Your task to perform on an android device: change the upload size in google photos Image 0: 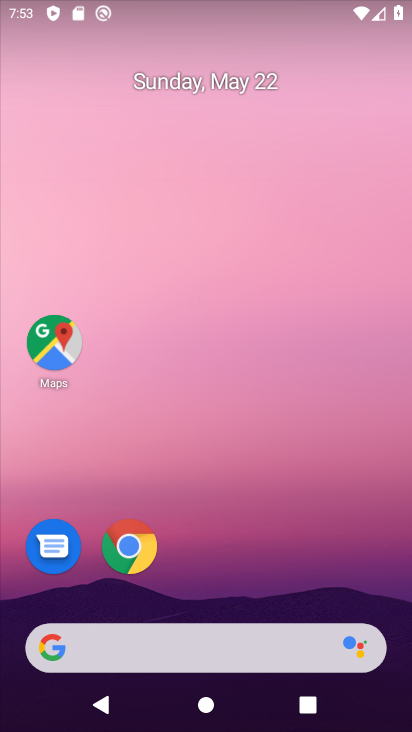
Step 0: drag from (195, 641) to (312, 111)
Your task to perform on an android device: change the upload size in google photos Image 1: 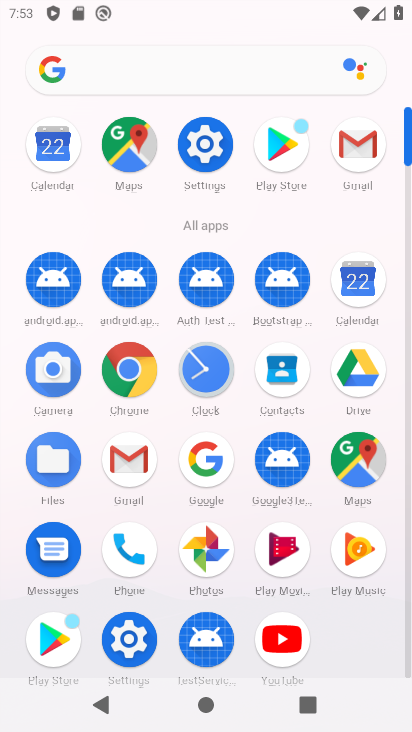
Step 1: click (198, 547)
Your task to perform on an android device: change the upload size in google photos Image 2: 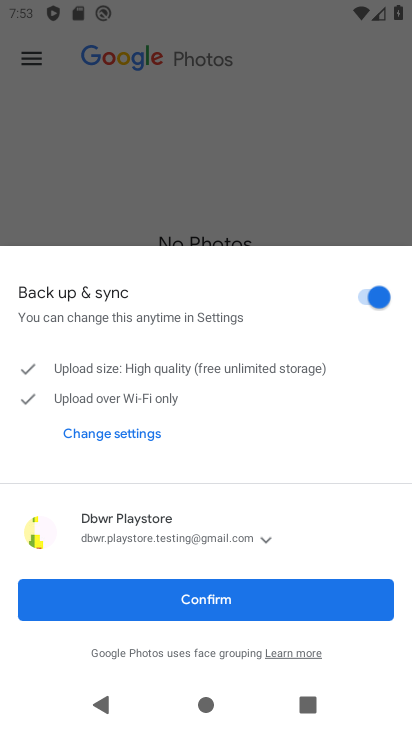
Step 2: click (197, 611)
Your task to perform on an android device: change the upload size in google photos Image 3: 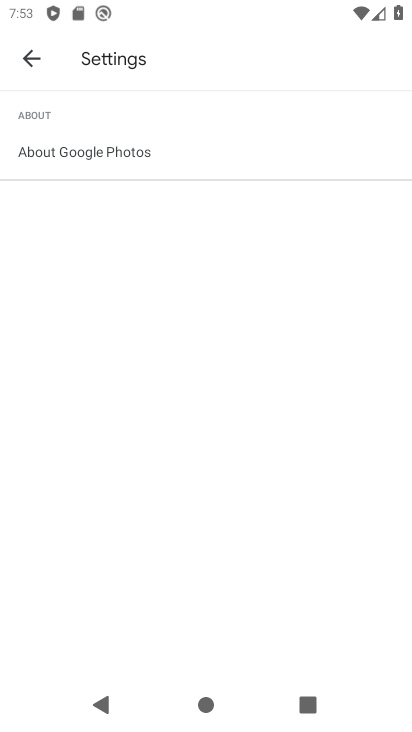
Step 3: click (33, 57)
Your task to perform on an android device: change the upload size in google photos Image 4: 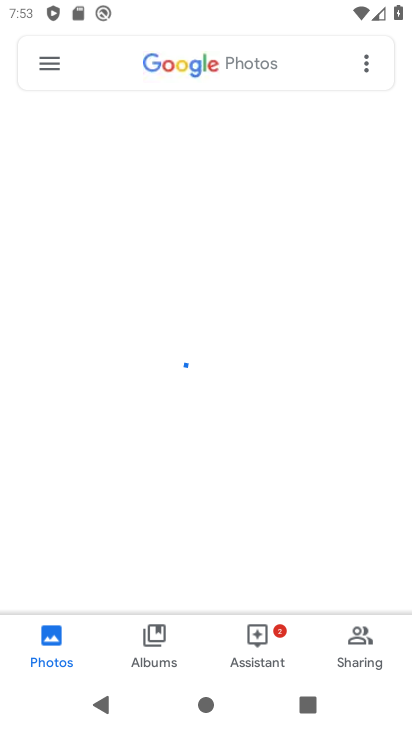
Step 4: click (47, 58)
Your task to perform on an android device: change the upload size in google photos Image 5: 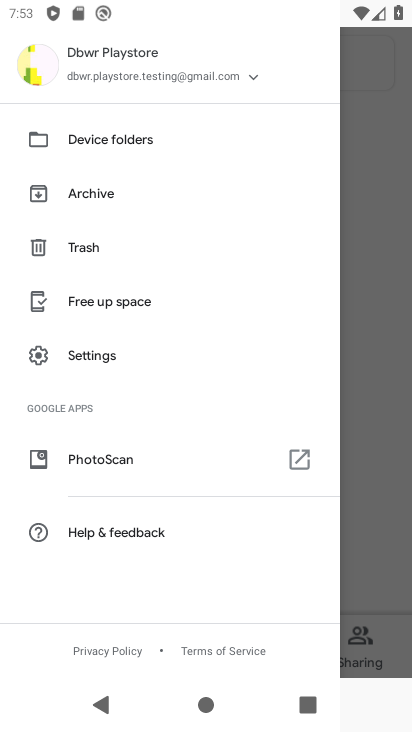
Step 5: click (107, 354)
Your task to perform on an android device: change the upload size in google photos Image 6: 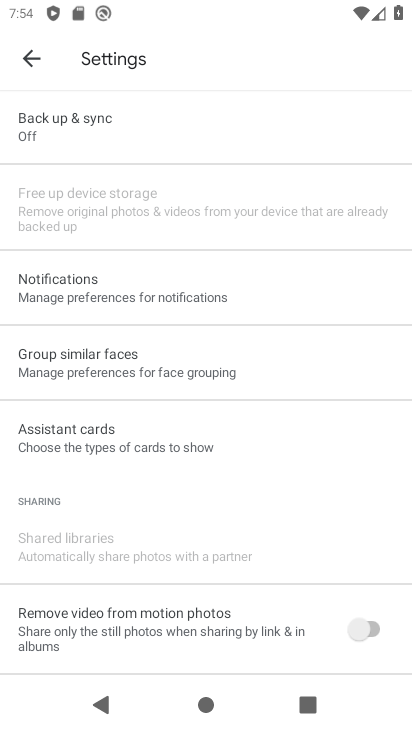
Step 6: click (117, 128)
Your task to perform on an android device: change the upload size in google photos Image 7: 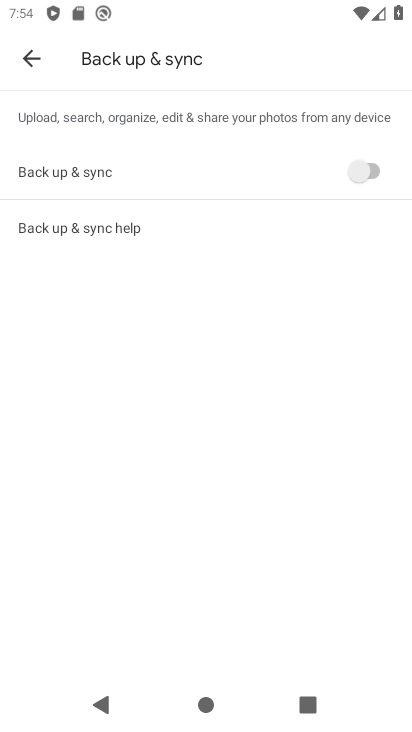
Step 7: click (374, 171)
Your task to perform on an android device: change the upload size in google photos Image 8: 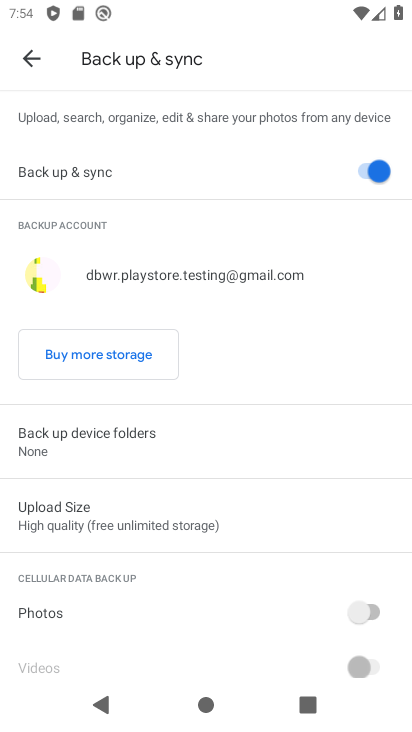
Step 8: click (165, 511)
Your task to perform on an android device: change the upload size in google photos Image 9: 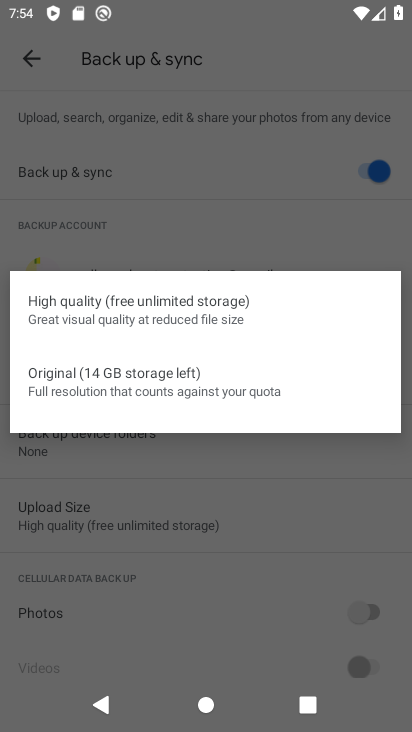
Step 9: click (144, 380)
Your task to perform on an android device: change the upload size in google photos Image 10: 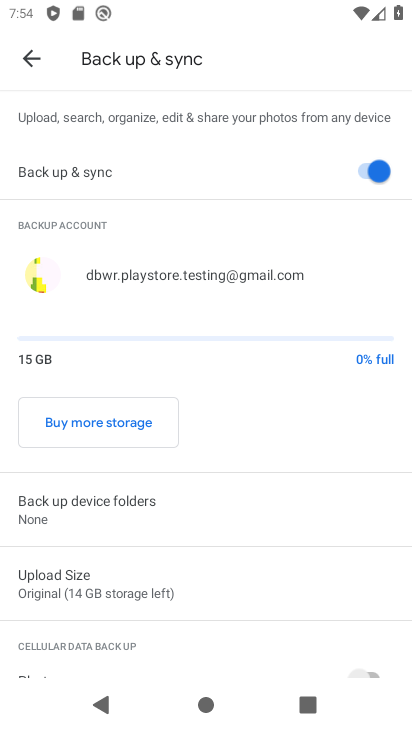
Step 10: task complete